Your task to perform on an android device: toggle javascript in the chrome app Image 0: 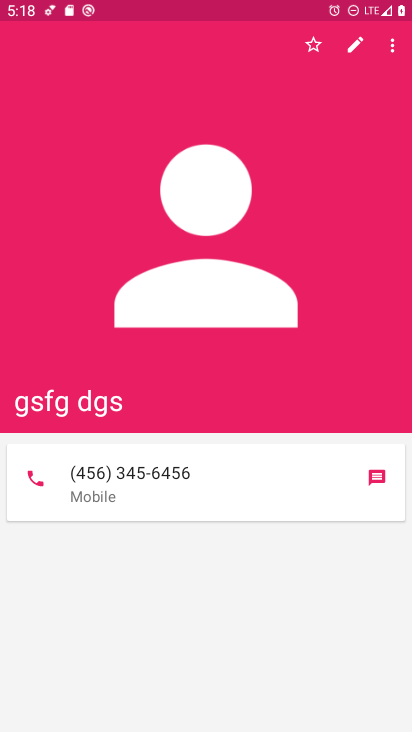
Step 0: press home button
Your task to perform on an android device: toggle javascript in the chrome app Image 1: 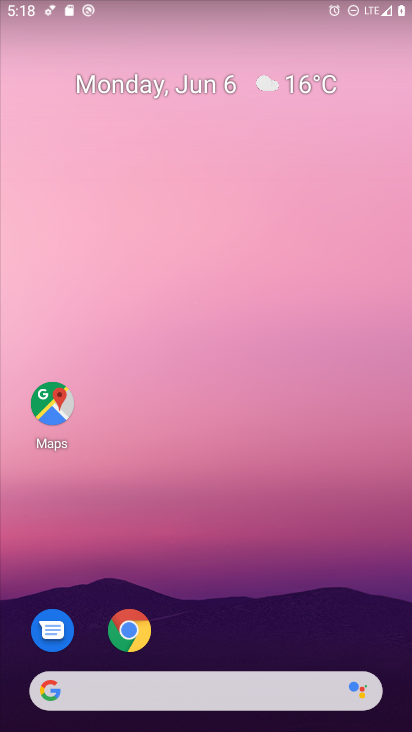
Step 1: drag from (298, 569) to (218, 20)
Your task to perform on an android device: toggle javascript in the chrome app Image 2: 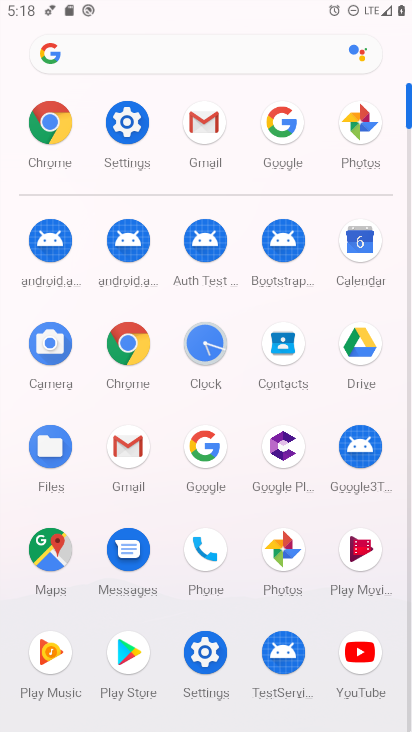
Step 2: click (133, 336)
Your task to perform on an android device: toggle javascript in the chrome app Image 3: 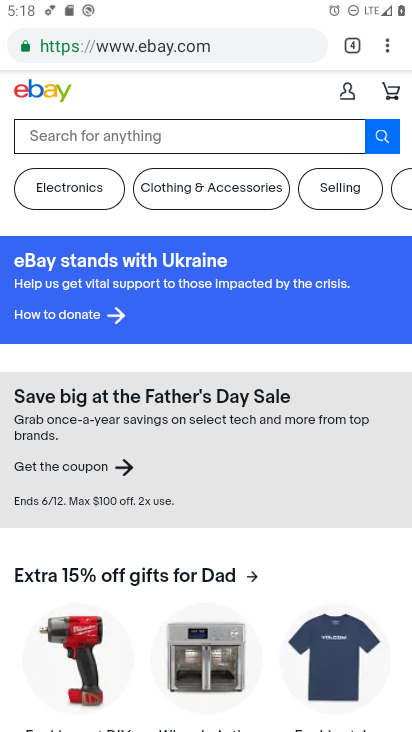
Step 3: click (382, 38)
Your task to perform on an android device: toggle javascript in the chrome app Image 4: 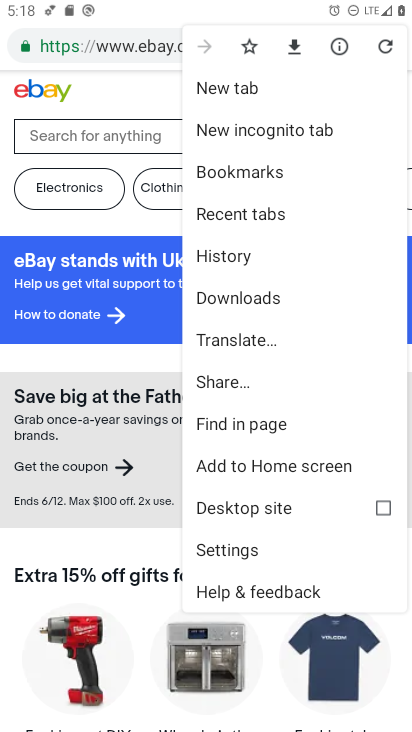
Step 4: click (263, 547)
Your task to perform on an android device: toggle javascript in the chrome app Image 5: 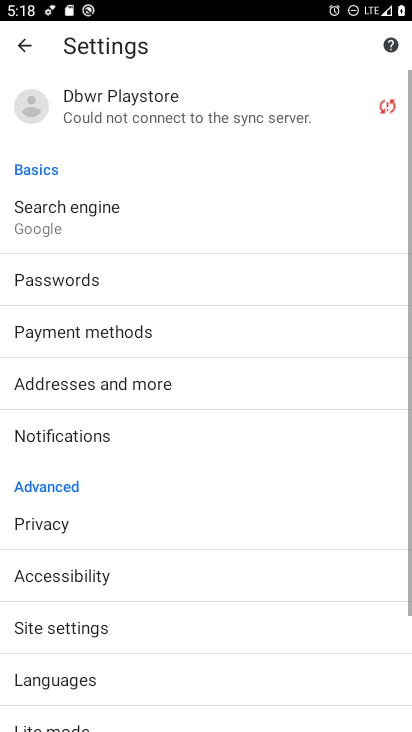
Step 5: drag from (235, 639) to (284, 40)
Your task to perform on an android device: toggle javascript in the chrome app Image 6: 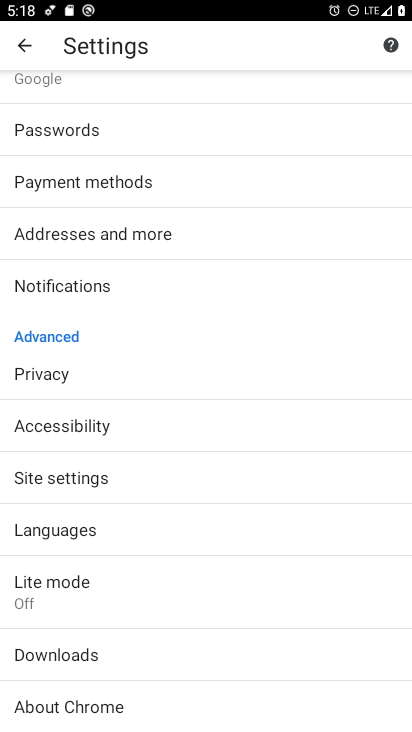
Step 6: click (230, 484)
Your task to perform on an android device: toggle javascript in the chrome app Image 7: 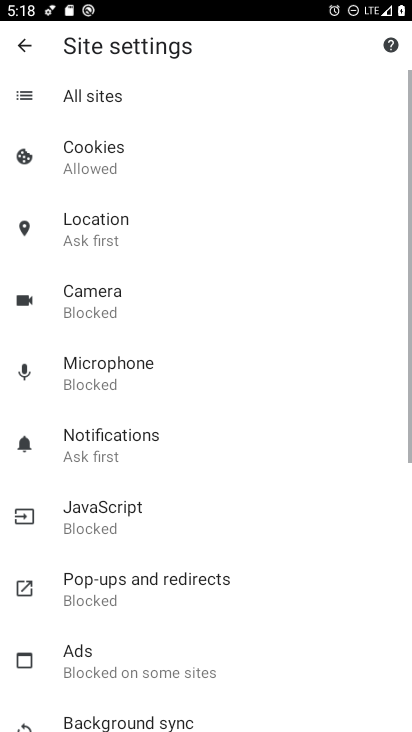
Step 7: click (159, 522)
Your task to perform on an android device: toggle javascript in the chrome app Image 8: 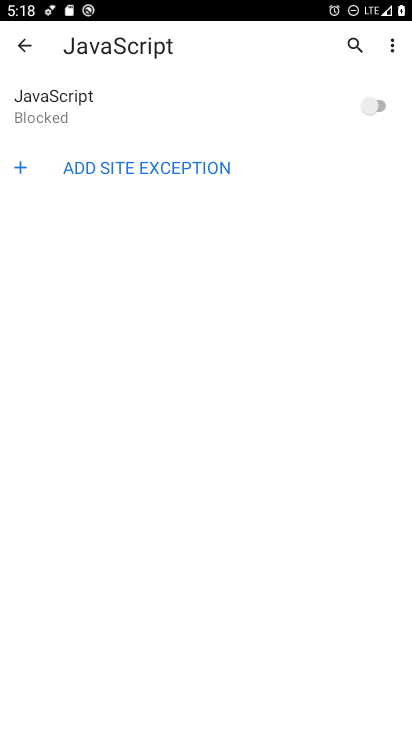
Step 8: click (367, 93)
Your task to perform on an android device: toggle javascript in the chrome app Image 9: 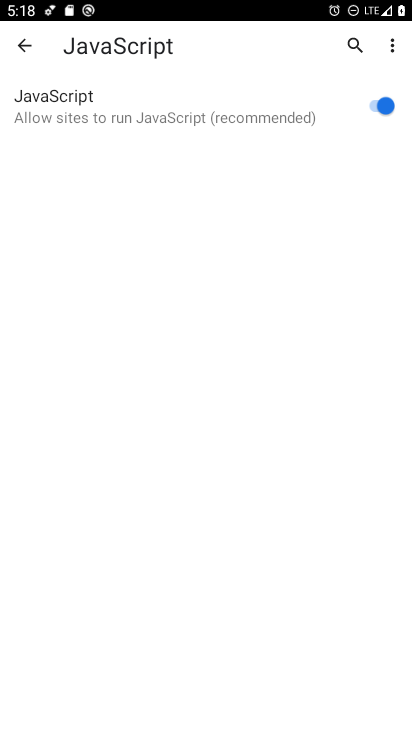
Step 9: task complete